Your task to perform on an android device: Open Youtube and go to the subscriptions tab Image 0: 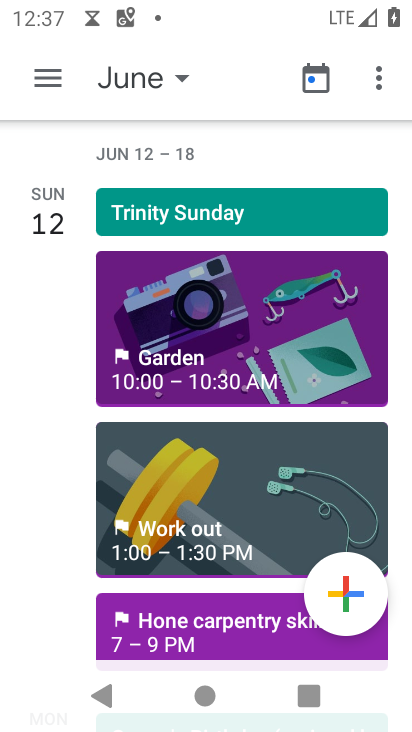
Step 0: press home button
Your task to perform on an android device: Open Youtube and go to the subscriptions tab Image 1: 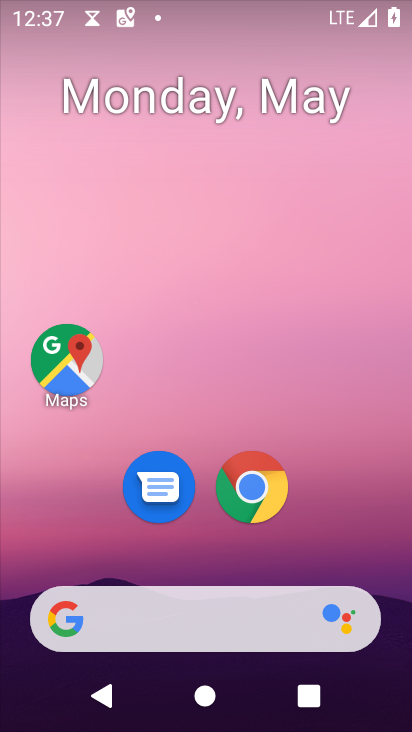
Step 1: drag from (320, 566) to (282, 7)
Your task to perform on an android device: Open Youtube and go to the subscriptions tab Image 2: 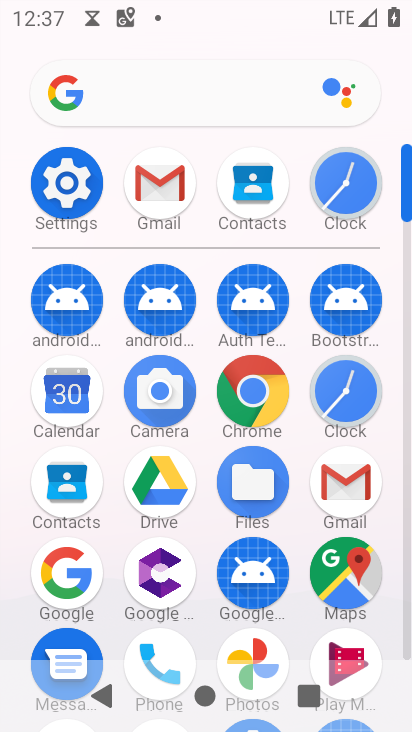
Step 2: drag from (301, 608) to (262, 195)
Your task to perform on an android device: Open Youtube and go to the subscriptions tab Image 3: 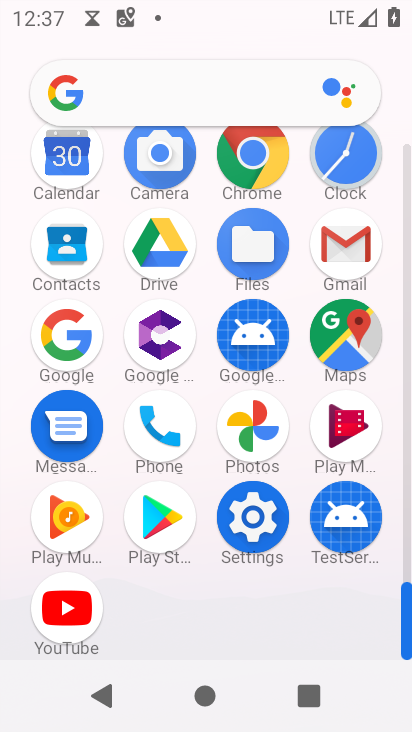
Step 3: click (57, 615)
Your task to perform on an android device: Open Youtube and go to the subscriptions tab Image 4: 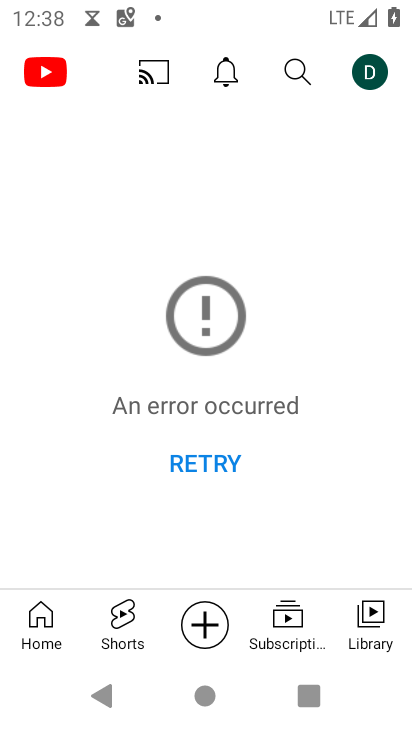
Step 4: click (303, 628)
Your task to perform on an android device: Open Youtube and go to the subscriptions tab Image 5: 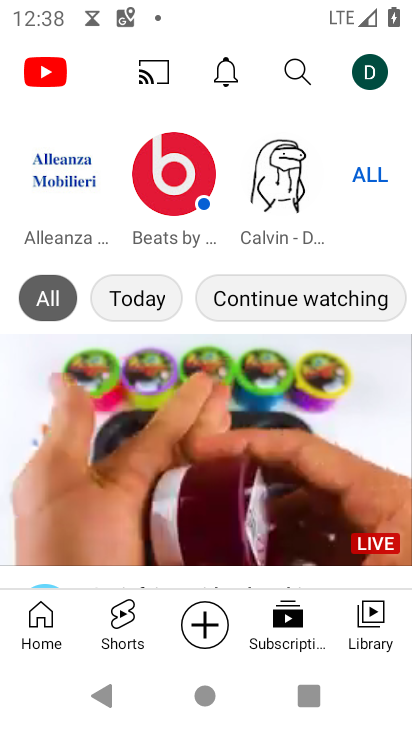
Step 5: task complete